Your task to perform on an android device: install app "Upside-Cash back on gas & food" Image 0: 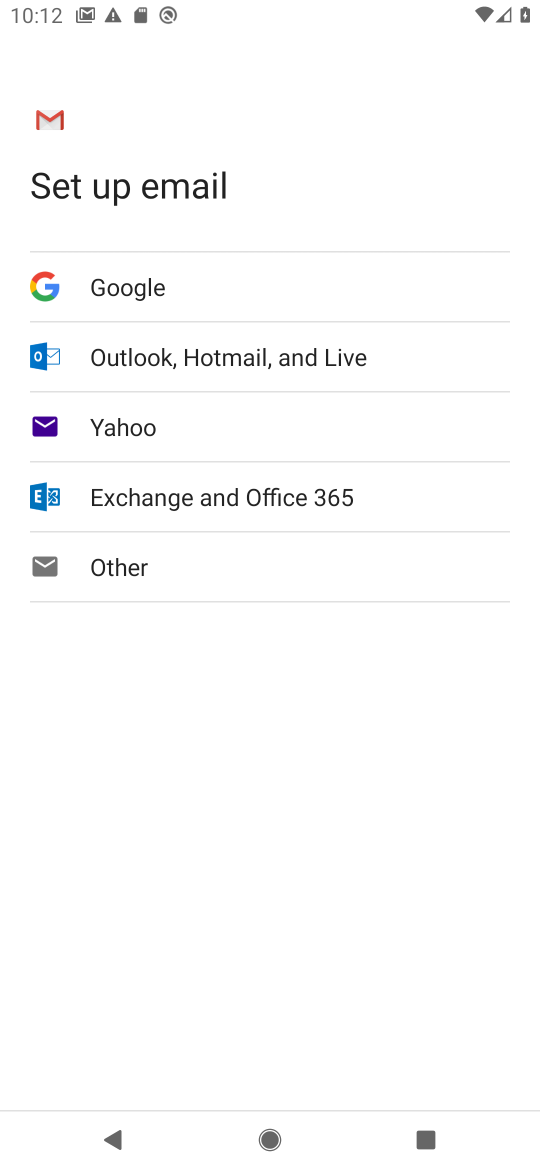
Step 0: press back button
Your task to perform on an android device: install app "Upside-Cash back on gas & food" Image 1: 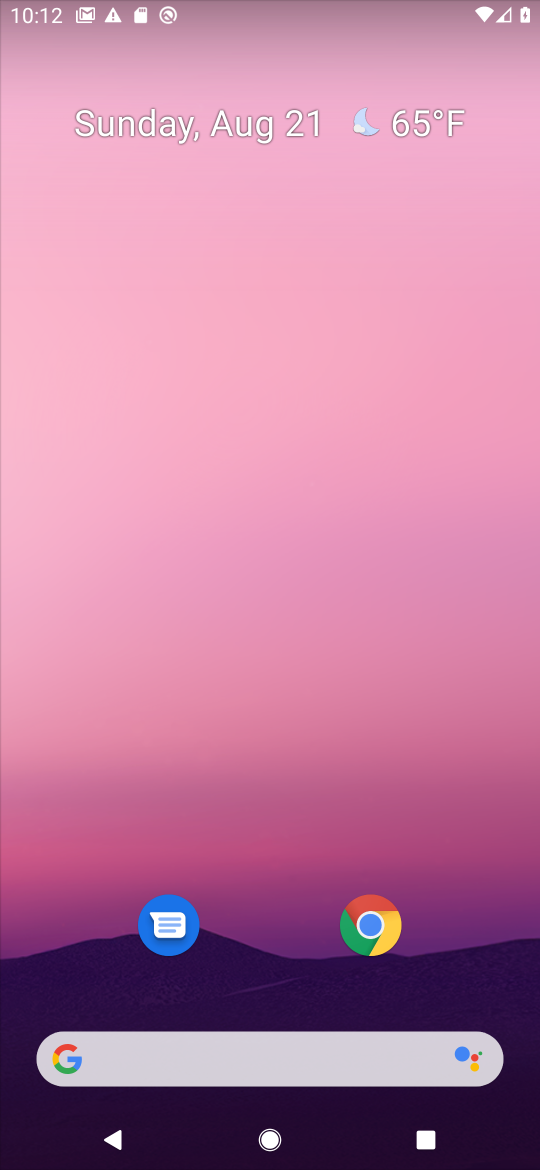
Step 1: drag from (296, 962) to (419, 155)
Your task to perform on an android device: install app "Upside-Cash back on gas & food" Image 2: 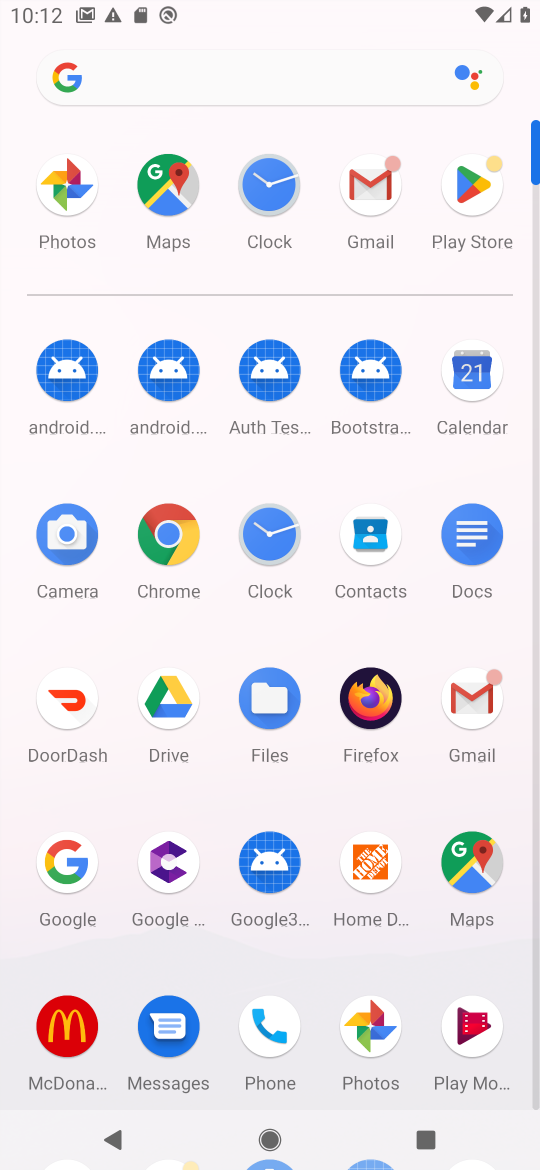
Step 2: click (484, 197)
Your task to perform on an android device: install app "Upside-Cash back on gas & food" Image 3: 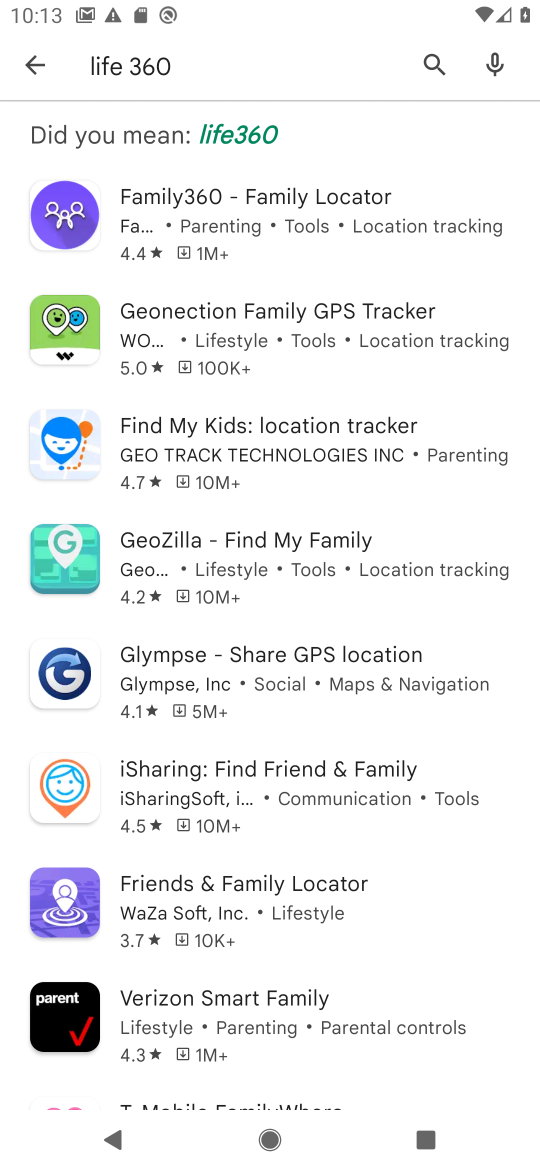
Step 3: click (441, 54)
Your task to perform on an android device: install app "Upside-Cash back on gas & food" Image 4: 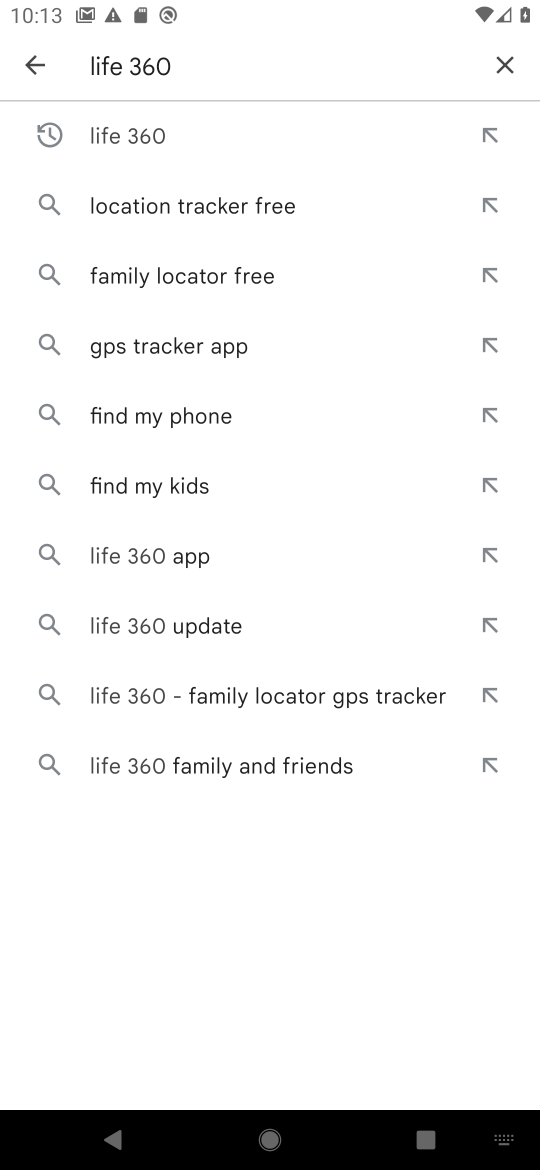
Step 4: click (515, 62)
Your task to perform on an android device: install app "Upside-Cash back on gas & food" Image 5: 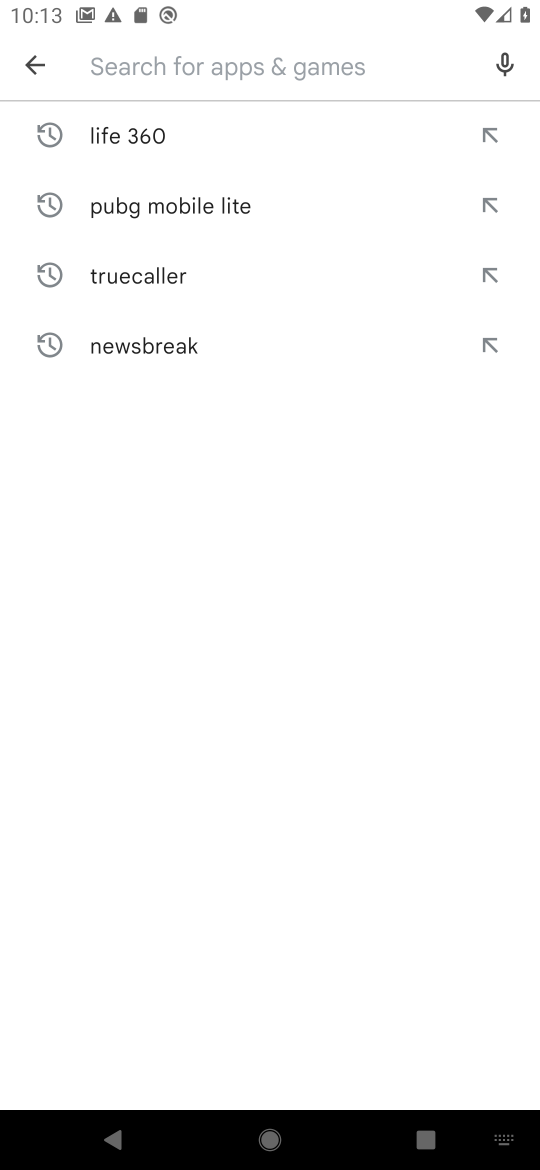
Step 5: click (238, 57)
Your task to perform on an android device: install app "Upside-Cash back on gas & food" Image 6: 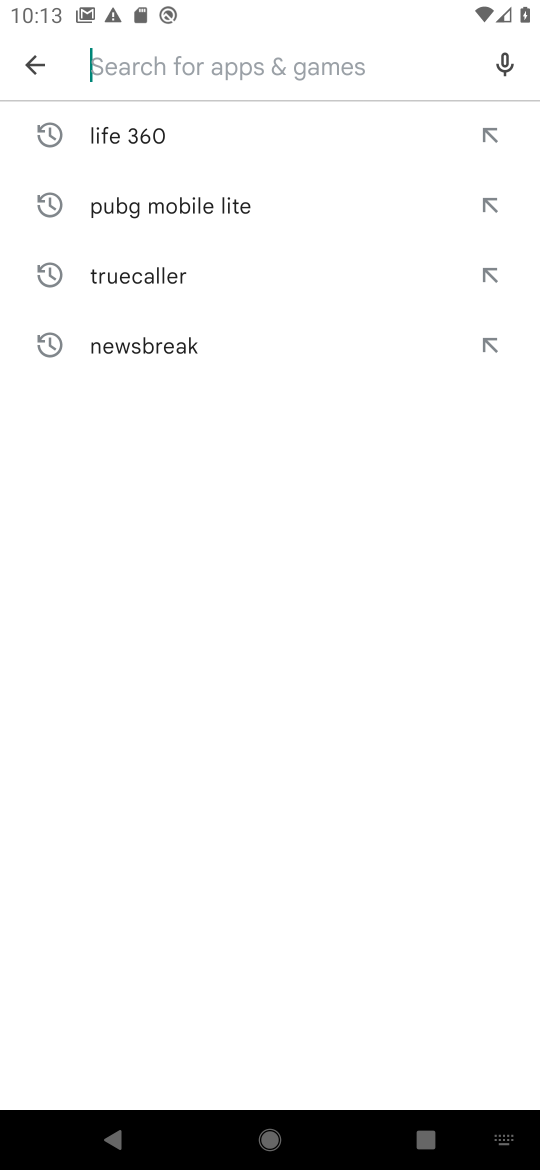
Step 6: type "upside cash"
Your task to perform on an android device: install app "Upside-Cash back on gas & food" Image 7: 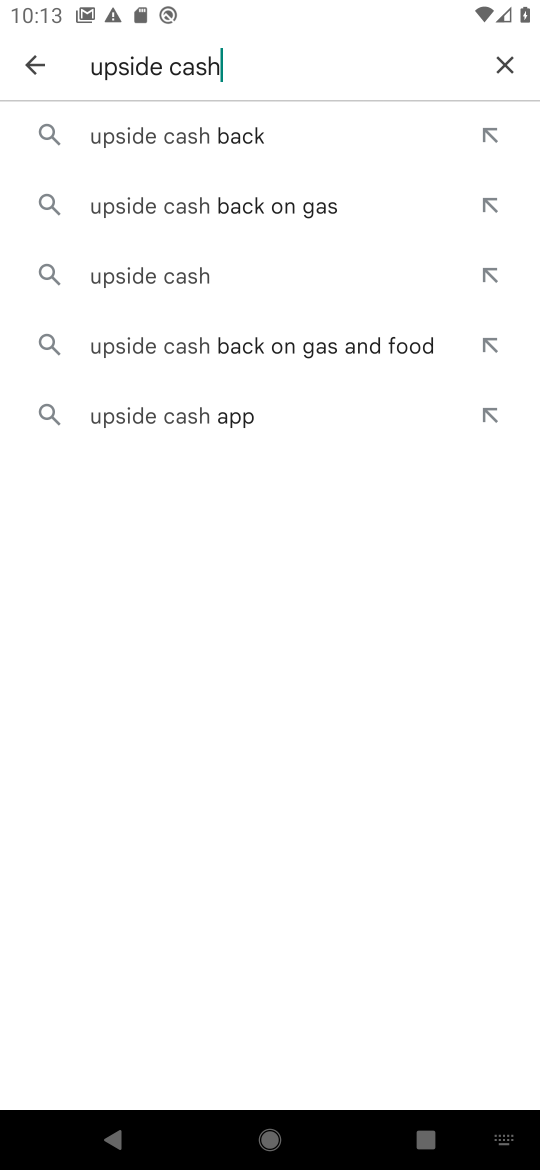
Step 7: click (139, 135)
Your task to perform on an android device: install app "Upside-Cash back on gas & food" Image 8: 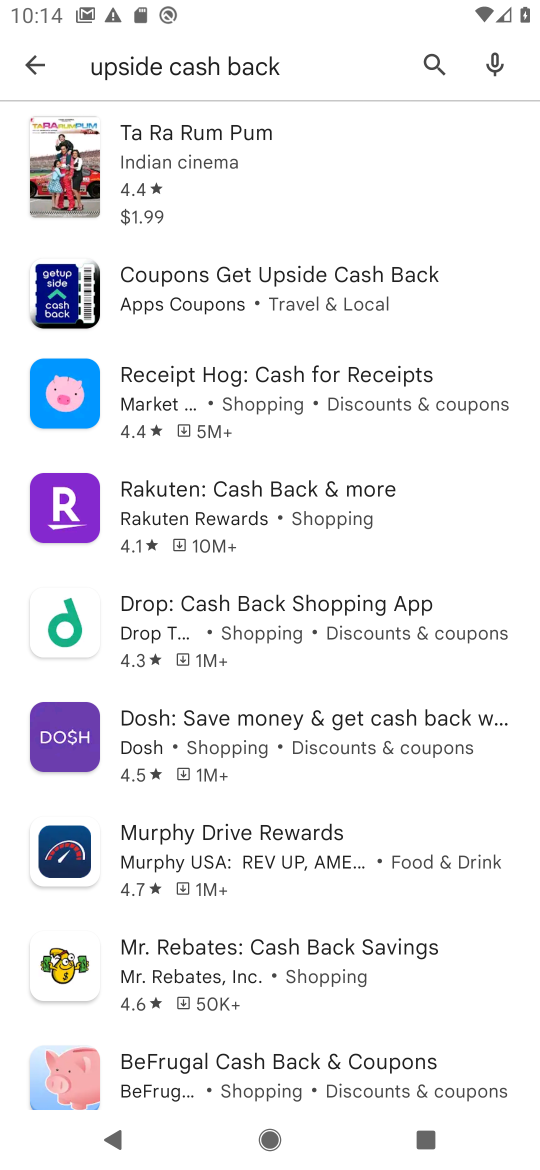
Step 8: task complete